Your task to perform on an android device: toggle translation in the chrome app Image 0: 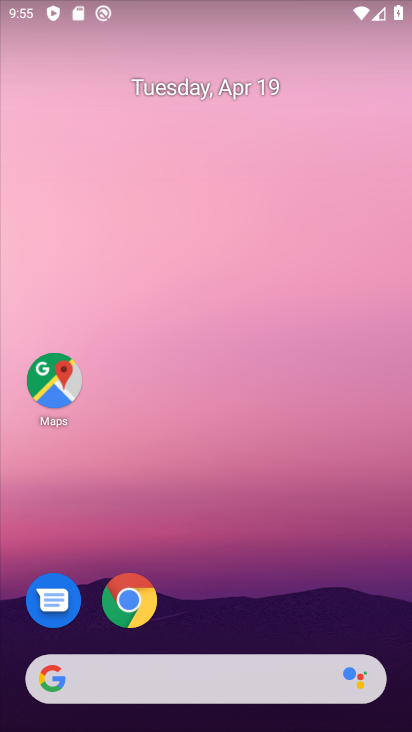
Step 0: drag from (335, 603) to (282, 45)
Your task to perform on an android device: toggle translation in the chrome app Image 1: 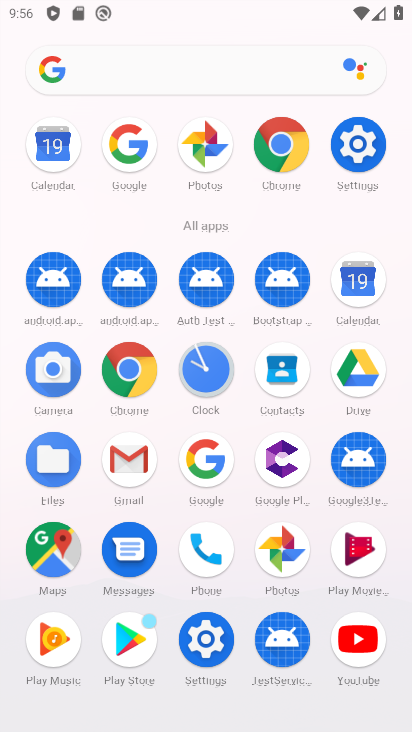
Step 1: click (284, 143)
Your task to perform on an android device: toggle translation in the chrome app Image 2: 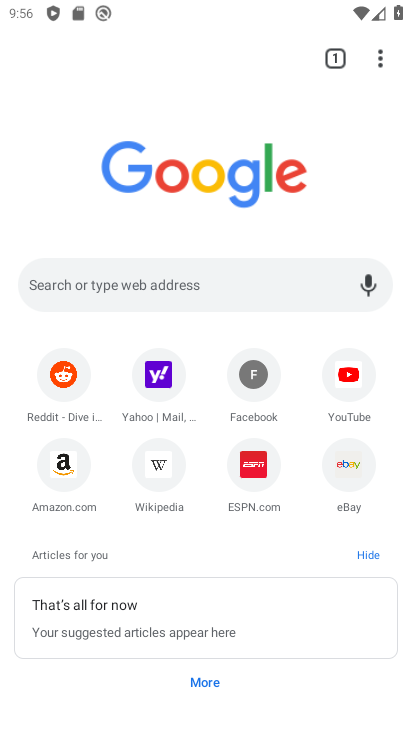
Step 2: click (382, 55)
Your task to perform on an android device: toggle translation in the chrome app Image 3: 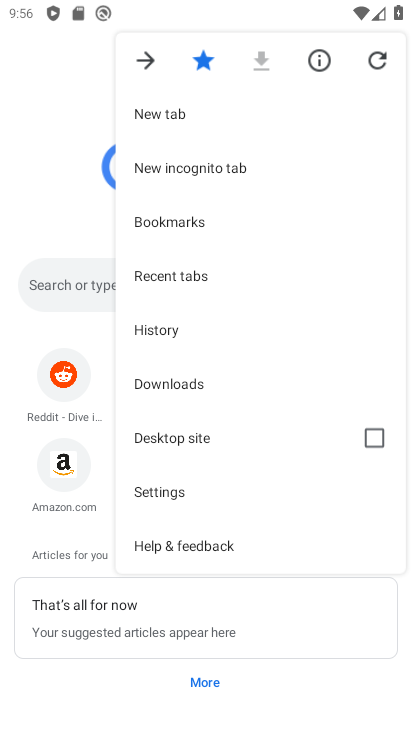
Step 3: click (214, 500)
Your task to perform on an android device: toggle translation in the chrome app Image 4: 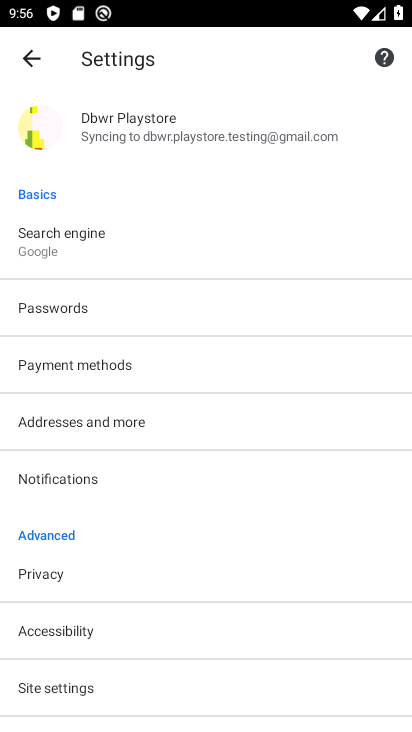
Step 4: drag from (148, 698) to (208, 345)
Your task to perform on an android device: toggle translation in the chrome app Image 5: 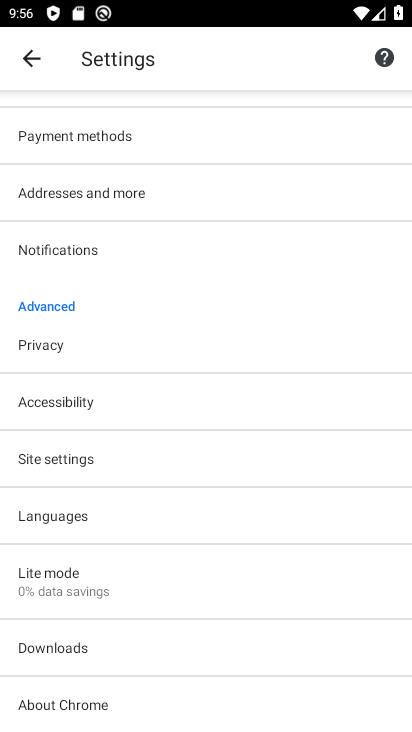
Step 5: click (175, 526)
Your task to perform on an android device: toggle translation in the chrome app Image 6: 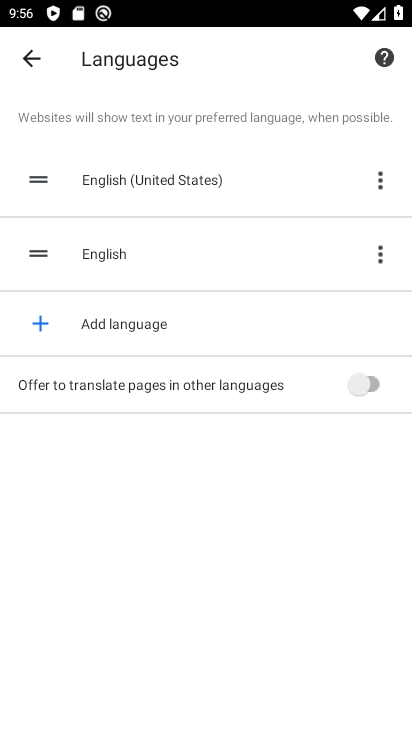
Step 6: click (338, 390)
Your task to perform on an android device: toggle translation in the chrome app Image 7: 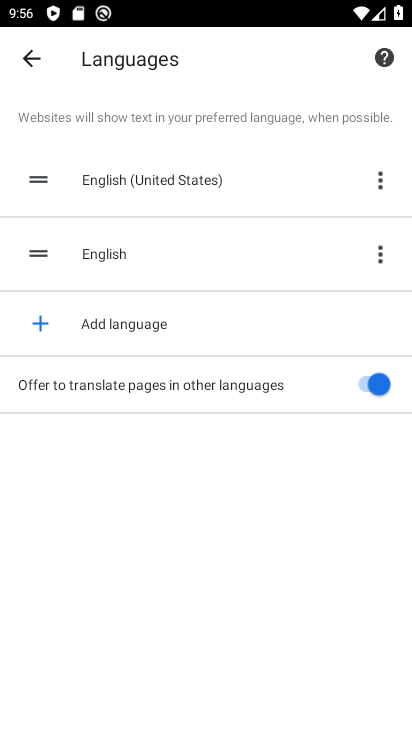
Step 7: task complete